Your task to perform on an android device: Open notification settings Image 0: 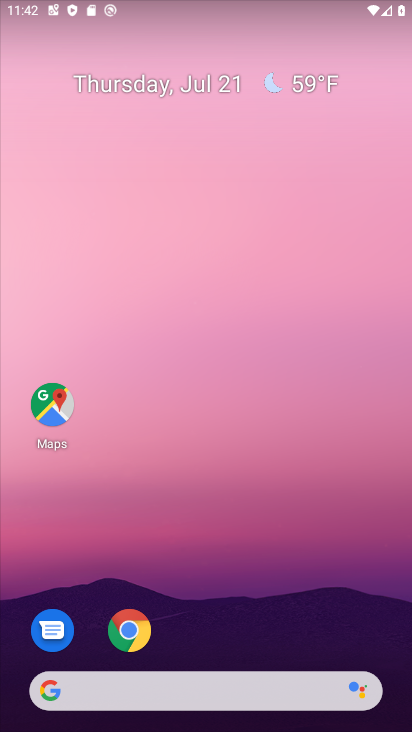
Step 0: drag from (175, 688) to (218, 274)
Your task to perform on an android device: Open notification settings Image 1: 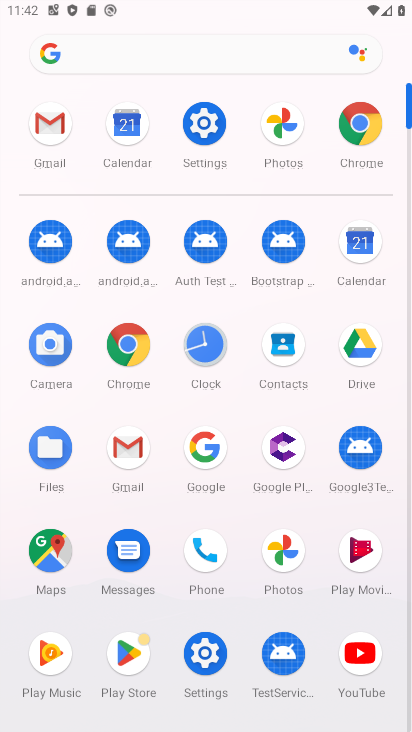
Step 1: click (204, 142)
Your task to perform on an android device: Open notification settings Image 2: 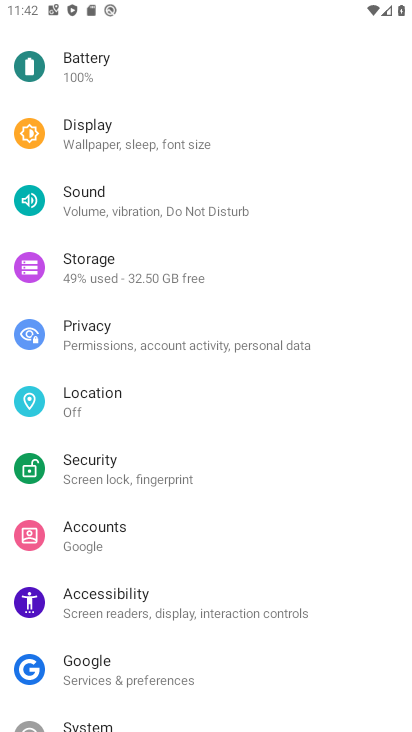
Step 2: drag from (122, 101) to (152, 495)
Your task to perform on an android device: Open notification settings Image 3: 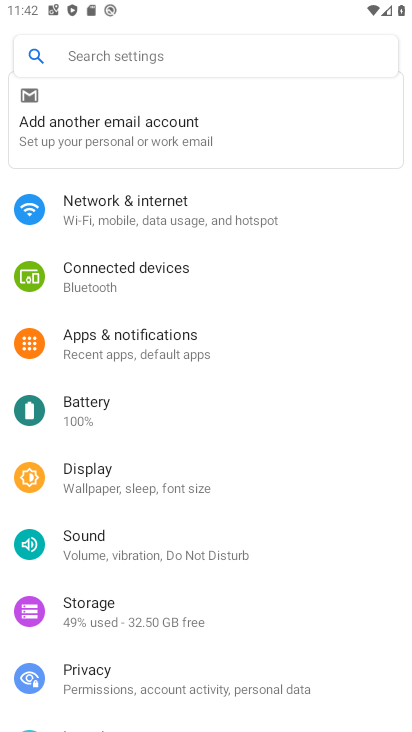
Step 3: click (133, 332)
Your task to perform on an android device: Open notification settings Image 4: 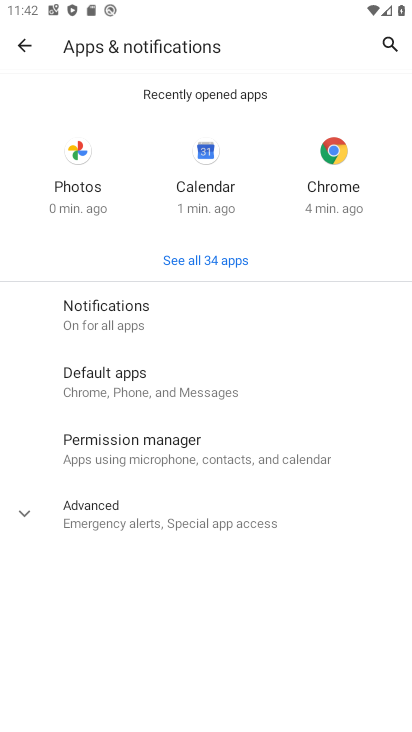
Step 4: click (104, 515)
Your task to perform on an android device: Open notification settings Image 5: 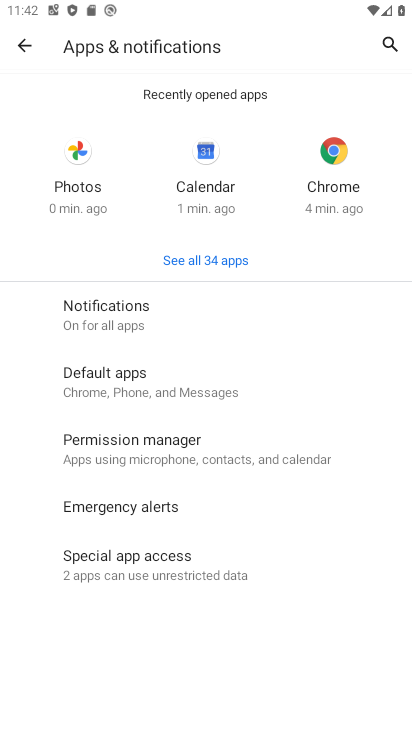
Step 5: task complete